Your task to perform on an android device: check data usage Image 0: 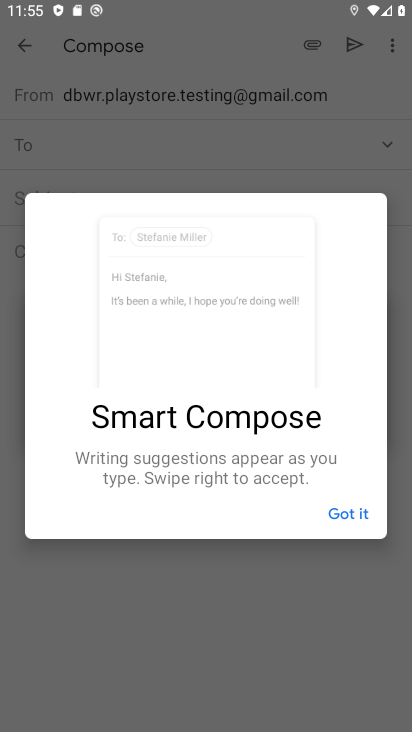
Step 0: press home button
Your task to perform on an android device: check data usage Image 1: 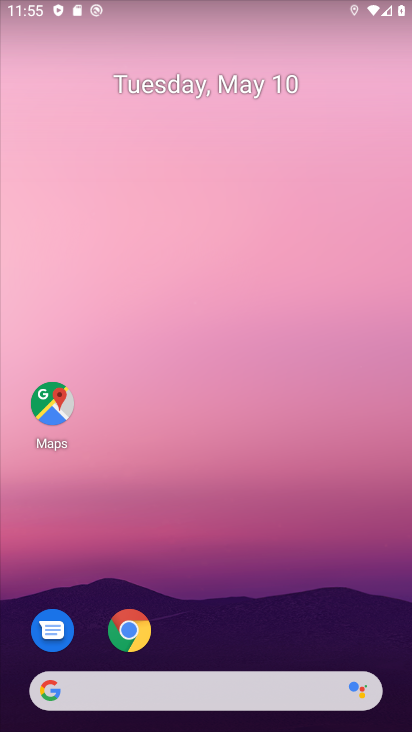
Step 1: drag from (189, 677) to (316, 6)
Your task to perform on an android device: check data usage Image 2: 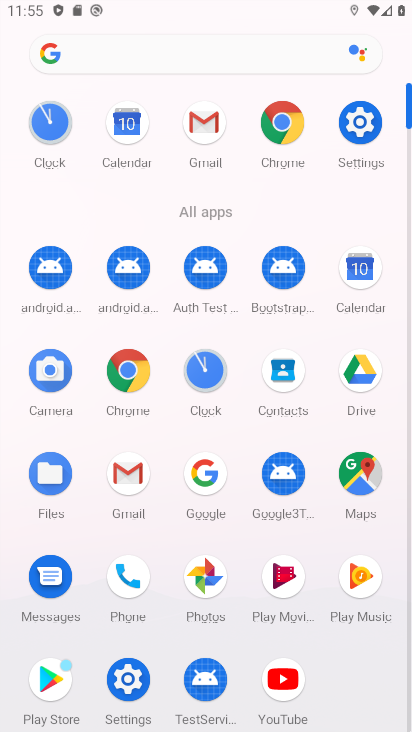
Step 2: click (354, 137)
Your task to perform on an android device: check data usage Image 3: 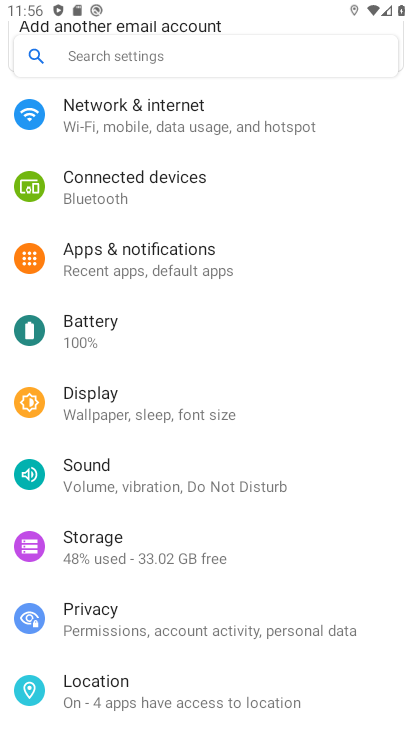
Step 3: click (139, 128)
Your task to perform on an android device: check data usage Image 4: 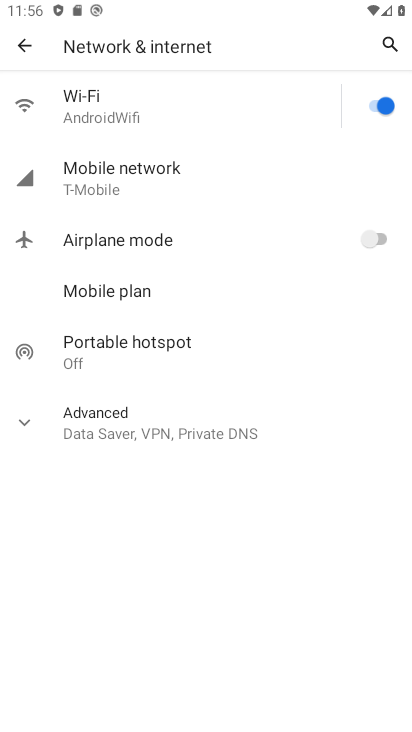
Step 4: click (143, 168)
Your task to perform on an android device: check data usage Image 5: 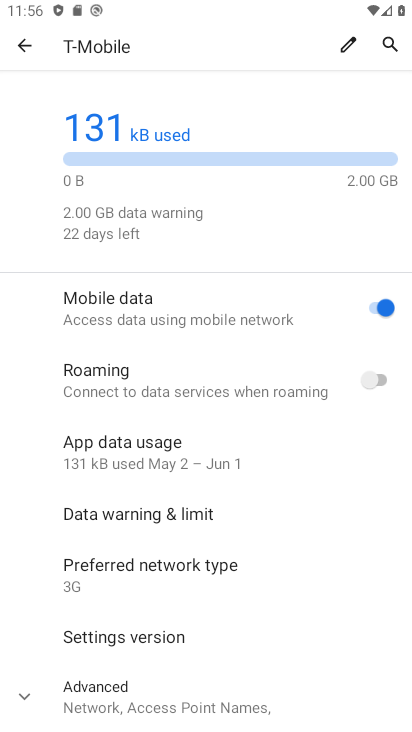
Step 5: task complete